Your task to perform on an android device: Open the web browser Image 0: 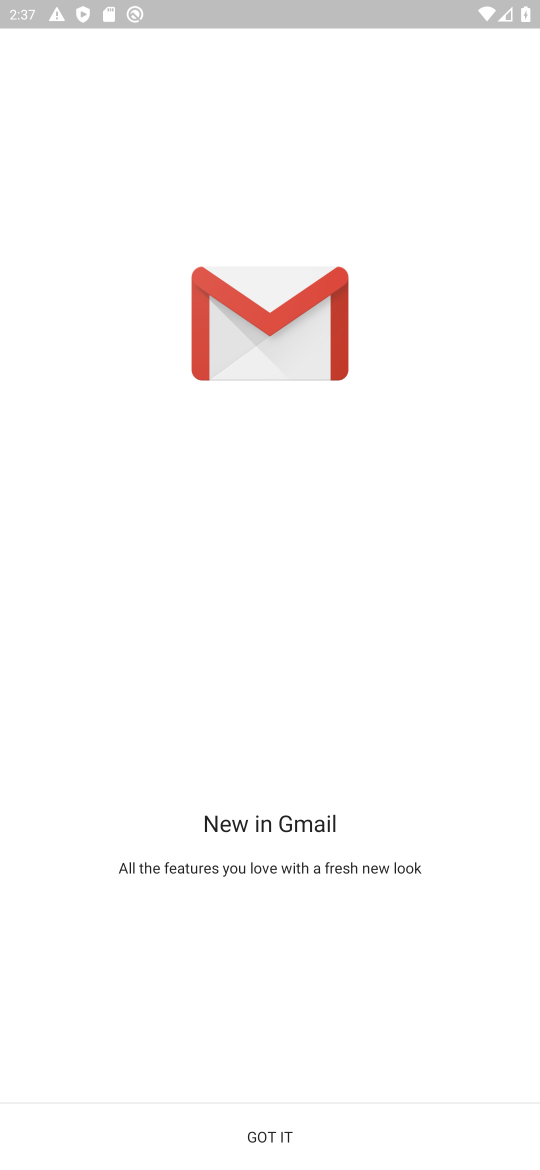
Step 0: press home button
Your task to perform on an android device: Open the web browser Image 1: 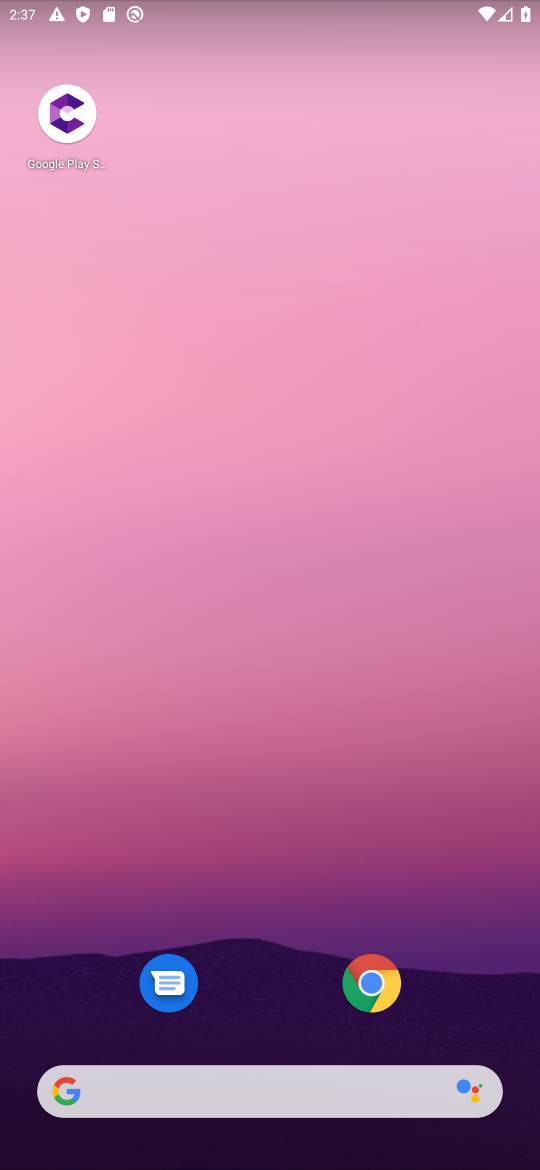
Step 1: drag from (253, 1084) to (148, 256)
Your task to perform on an android device: Open the web browser Image 2: 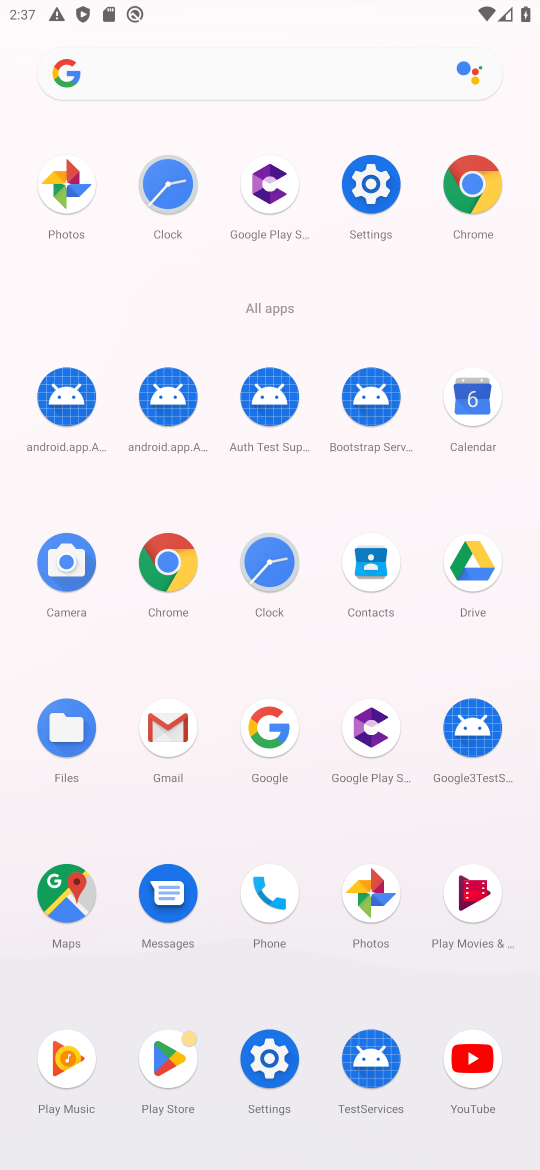
Step 2: click (156, 545)
Your task to perform on an android device: Open the web browser Image 3: 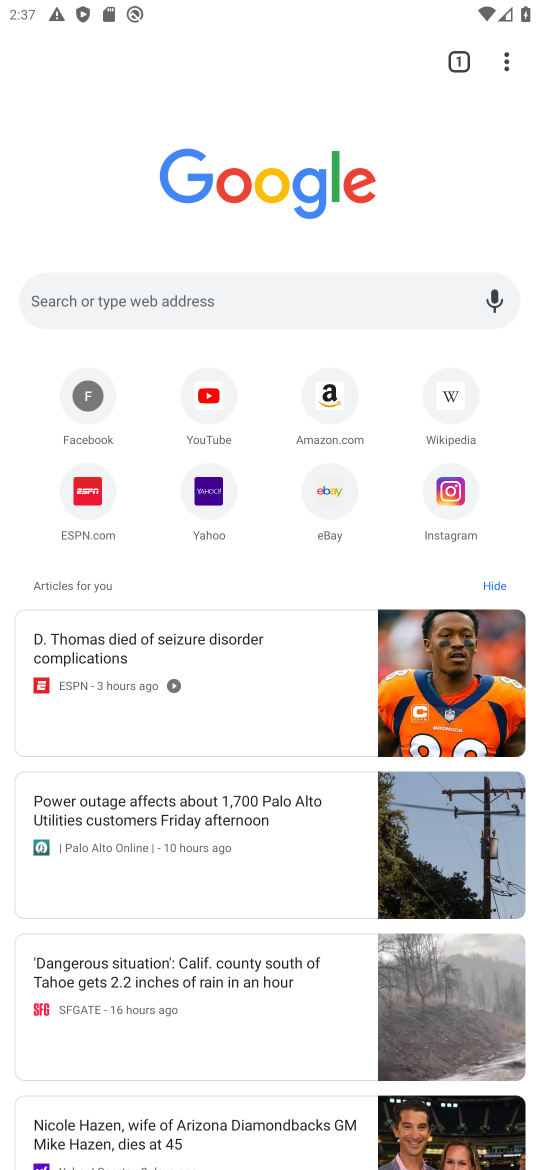
Step 3: task complete